Your task to perform on an android device: delete location history Image 0: 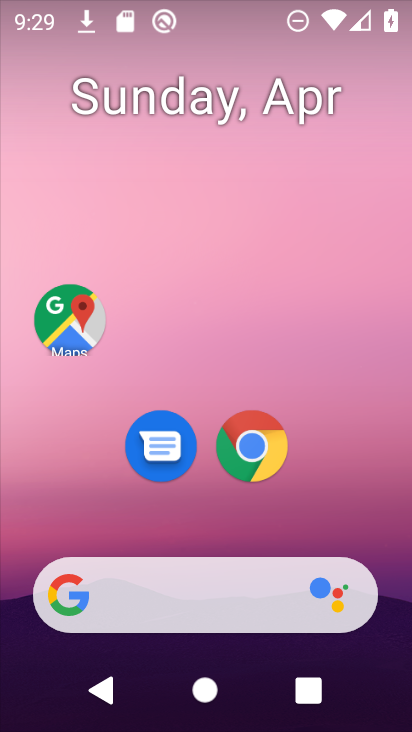
Step 0: drag from (237, 318) to (233, 235)
Your task to perform on an android device: delete location history Image 1: 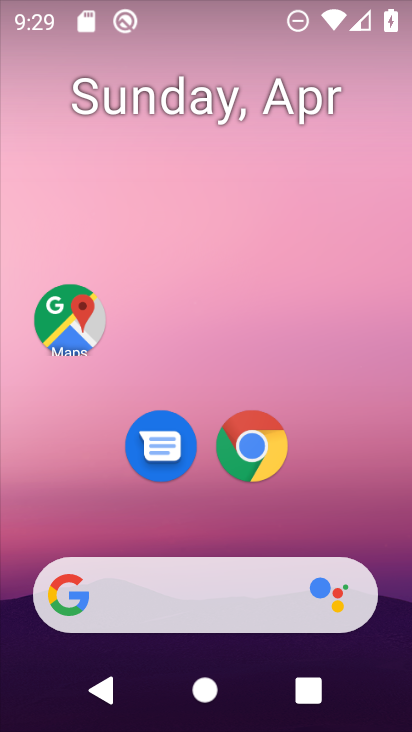
Step 1: drag from (194, 512) to (193, 151)
Your task to perform on an android device: delete location history Image 2: 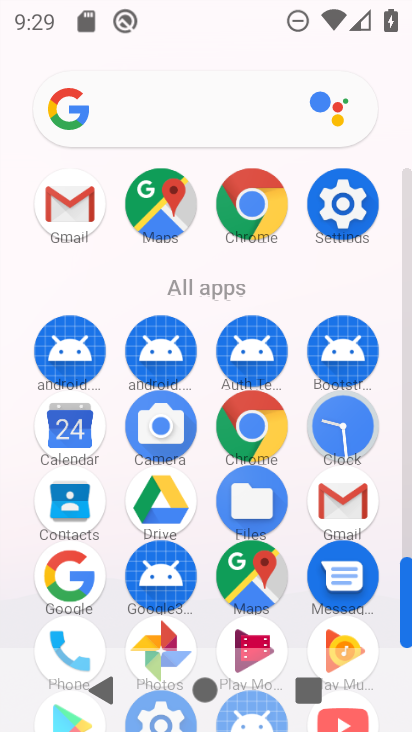
Step 2: click (344, 195)
Your task to perform on an android device: delete location history Image 3: 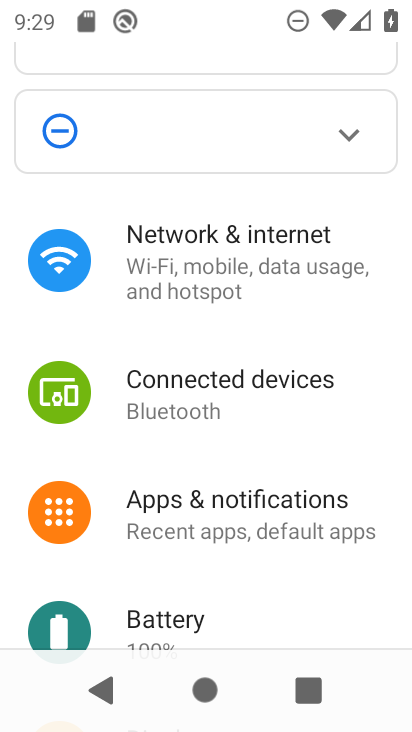
Step 3: drag from (250, 561) to (273, 112)
Your task to perform on an android device: delete location history Image 4: 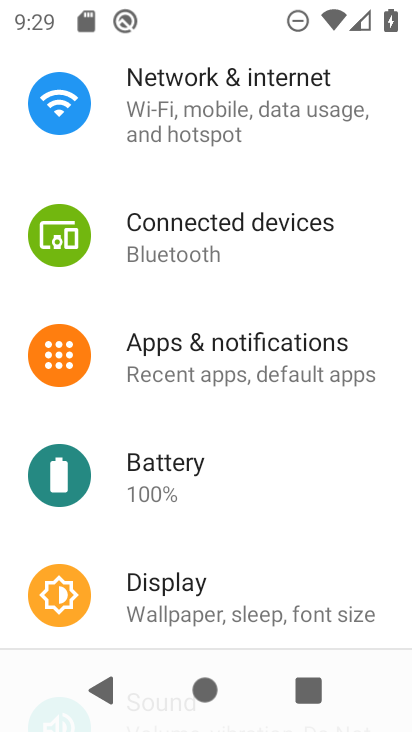
Step 4: drag from (153, 542) to (198, 212)
Your task to perform on an android device: delete location history Image 5: 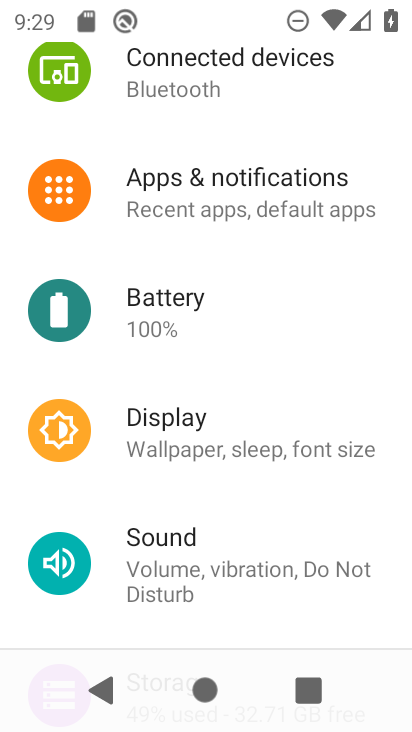
Step 5: drag from (213, 587) to (231, 158)
Your task to perform on an android device: delete location history Image 6: 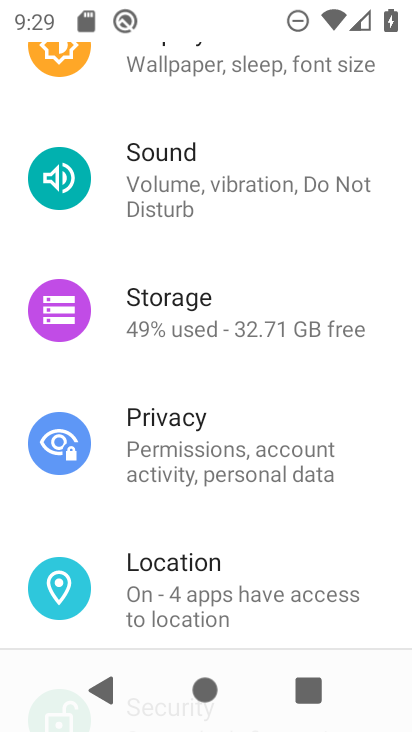
Step 6: click (207, 548)
Your task to perform on an android device: delete location history Image 7: 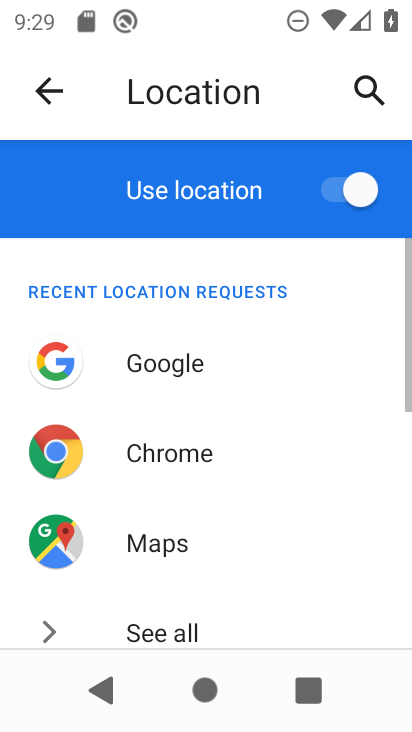
Step 7: drag from (181, 587) to (217, 199)
Your task to perform on an android device: delete location history Image 8: 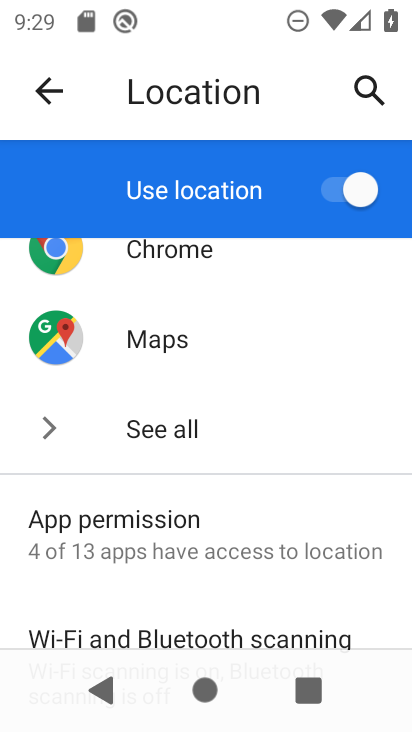
Step 8: drag from (152, 518) to (233, 198)
Your task to perform on an android device: delete location history Image 9: 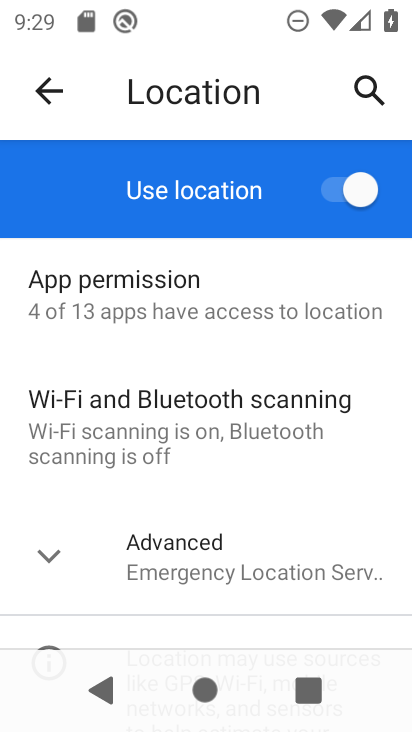
Step 9: click (217, 547)
Your task to perform on an android device: delete location history Image 10: 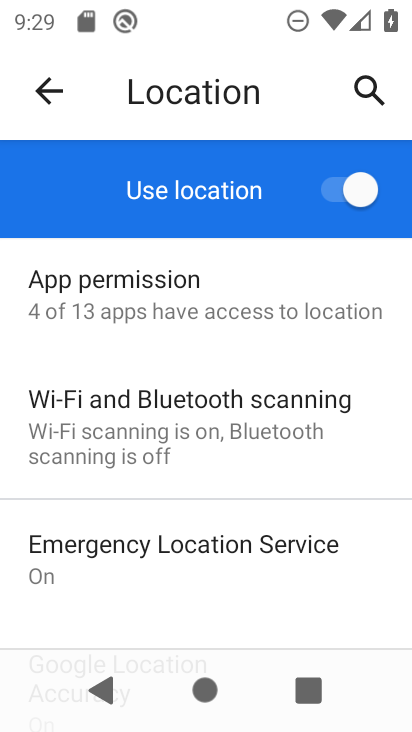
Step 10: drag from (166, 551) to (218, 302)
Your task to perform on an android device: delete location history Image 11: 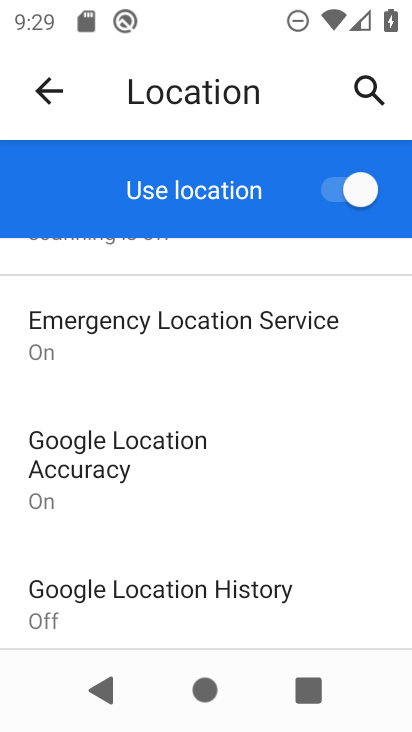
Step 11: click (182, 615)
Your task to perform on an android device: delete location history Image 12: 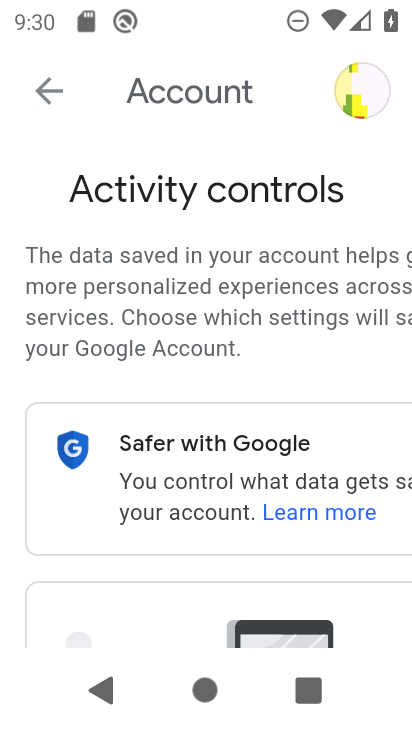
Step 12: drag from (170, 536) to (201, 235)
Your task to perform on an android device: delete location history Image 13: 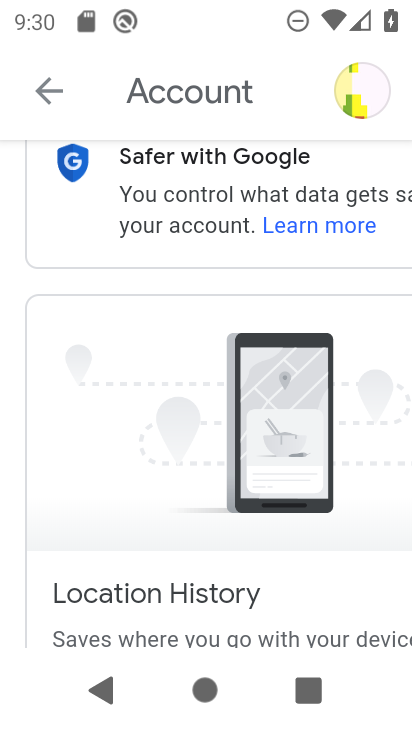
Step 13: drag from (135, 574) to (184, 344)
Your task to perform on an android device: delete location history Image 14: 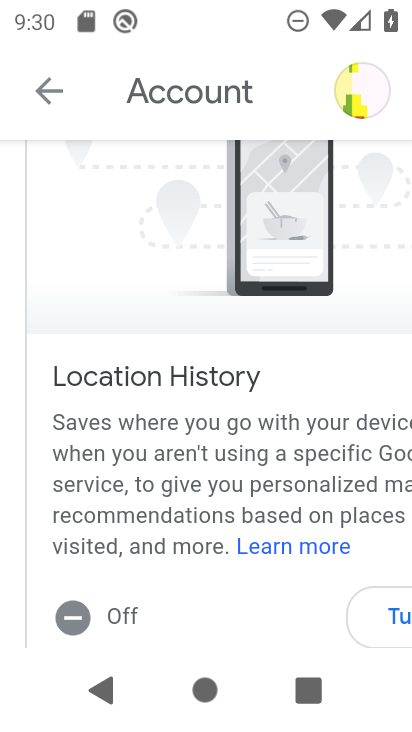
Step 14: drag from (262, 580) to (267, 204)
Your task to perform on an android device: delete location history Image 15: 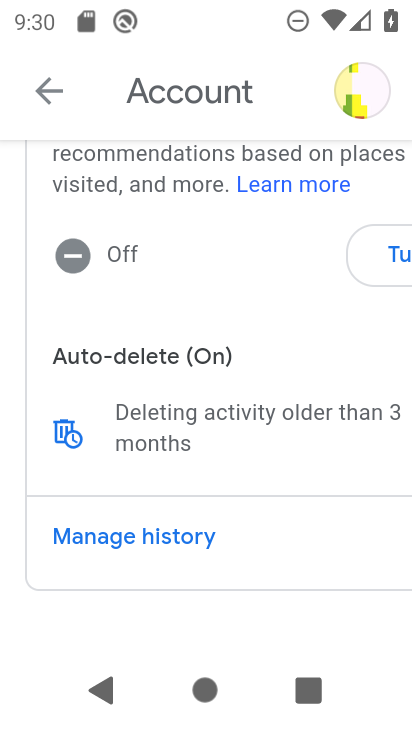
Step 15: click (51, 439)
Your task to perform on an android device: delete location history Image 16: 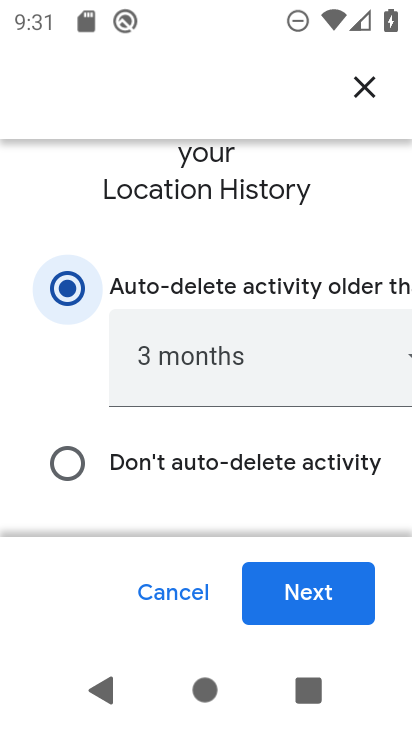
Step 16: click (313, 576)
Your task to perform on an android device: delete location history Image 17: 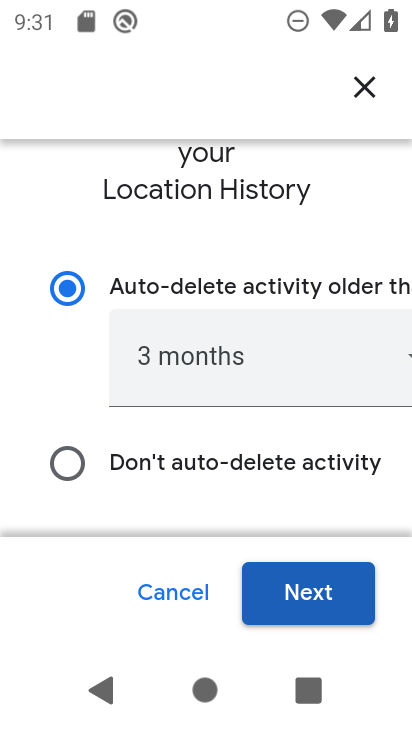
Step 17: click (319, 584)
Your task to perform on an android device: delete location history Image 18: 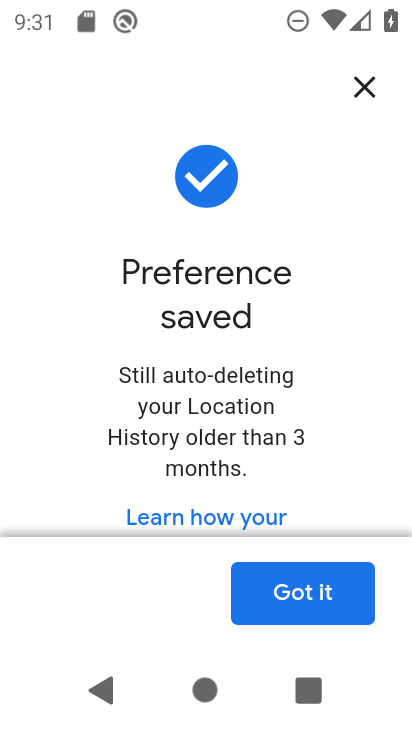
Step 18: click (328, 613)
Your task to perform on an android device: delete location history Image 19: 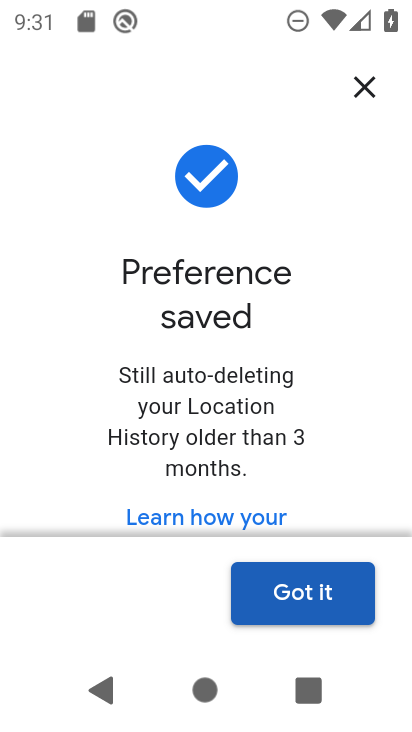
Step 19: task complete